Your task to perform on an android device: check battery use Image 0: 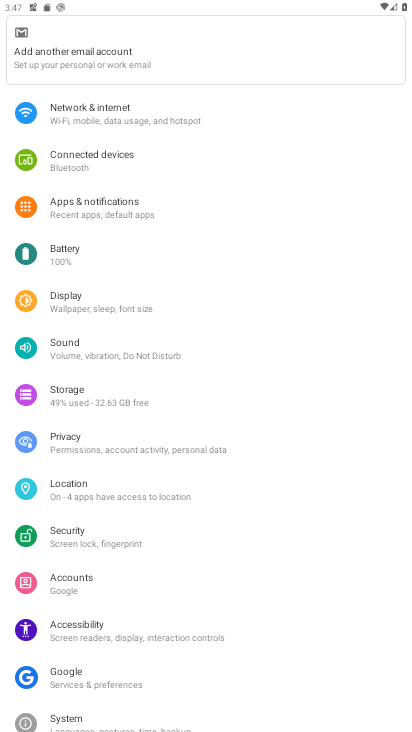
Step 0: press home button
Your task to perform on an android device: check battery use Image 1: 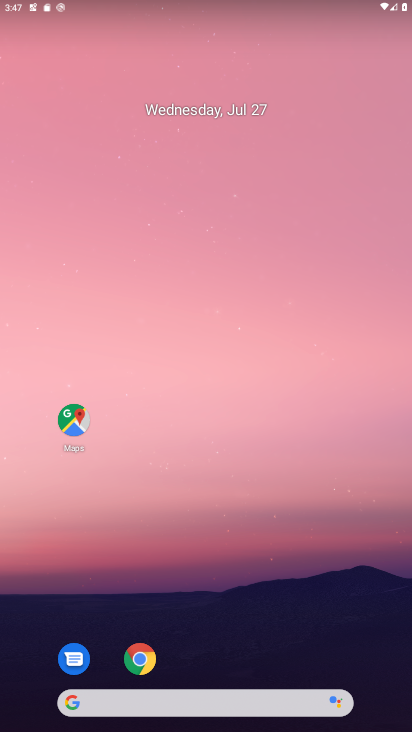
Step 1: drag from (202, 596) to (118, 43)
Your task to perform on an android device: check battery use Image 2: 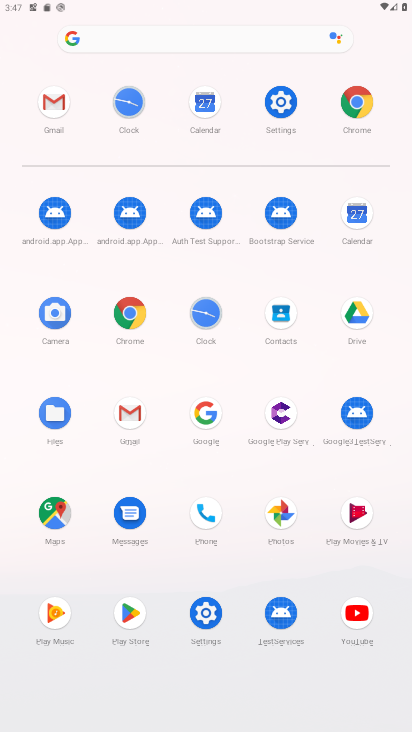
Step 2: click (274, 100)
Your task to perform on an android device: check battery use Image 3: 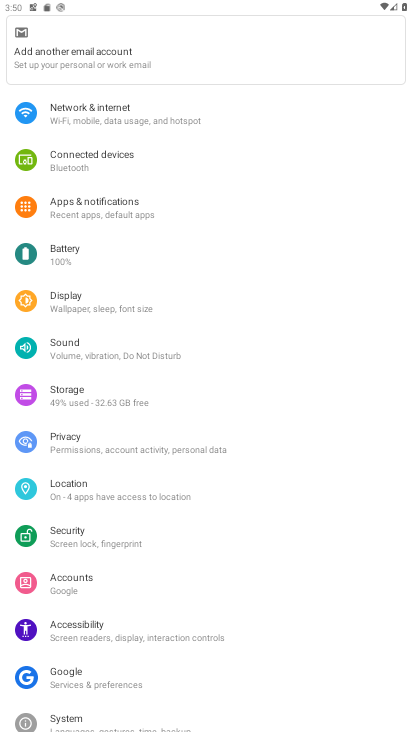
Step 3: click (55, 255)
Your task to perform on an android device: check battery use Image 4: 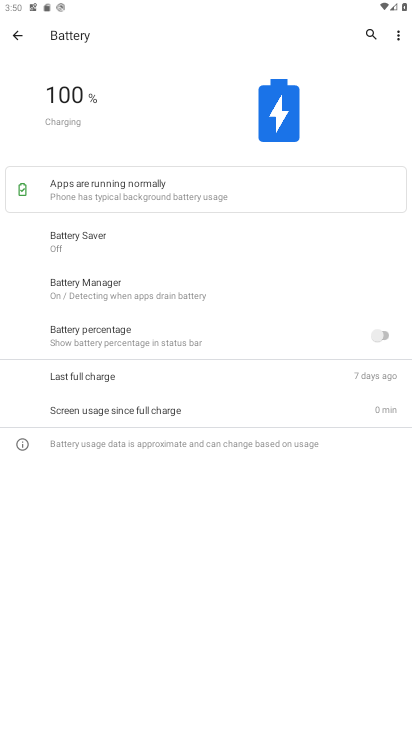
Step 4: task complete